Your task to perform on an android device: turn pop-ups on in chrome Image 0: 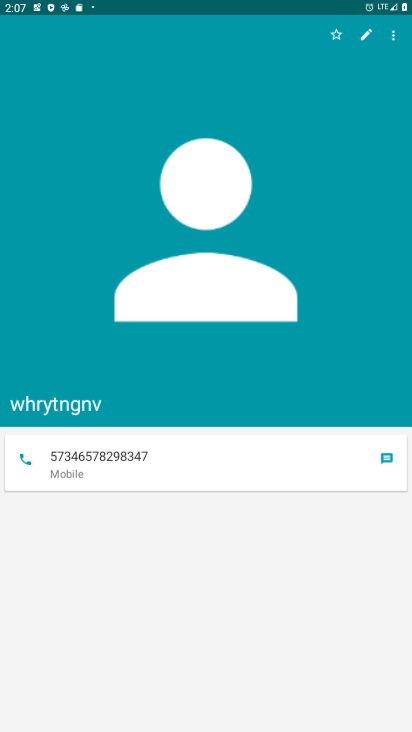
Step 0: drag from (209, 716) to (209, 353)
Your task to perform on an android device: turn pop-ups on in chrome Image 1: 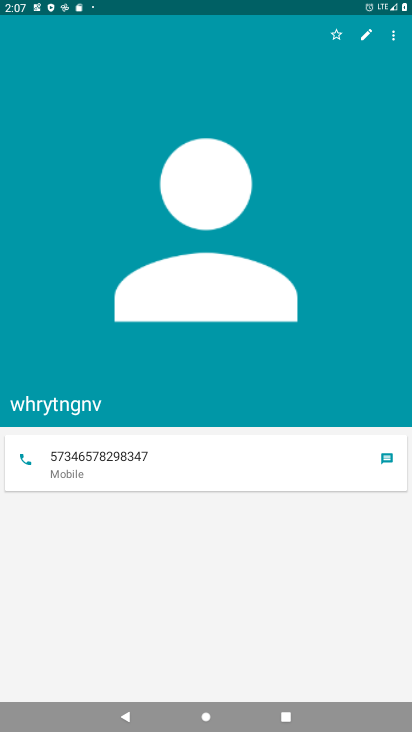
Step 1: press home button
Your task to perform on an android device: turn pop-ups on in chrome Image 2: 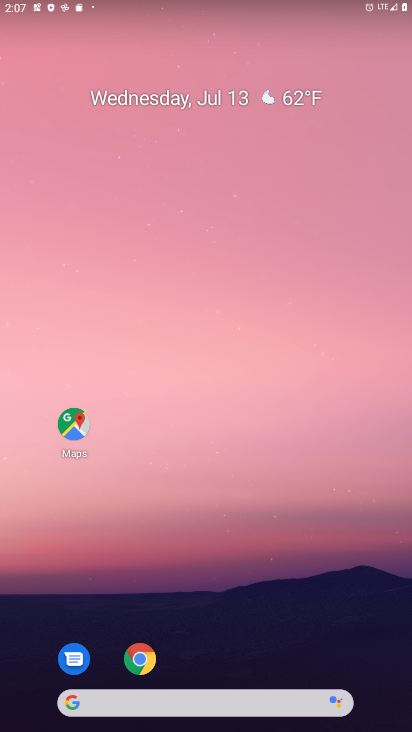
Step 2: drag from (217, 729) to (217, 592)
Your task to perform on an android device: turn pop-ups on in chrome Image 3: 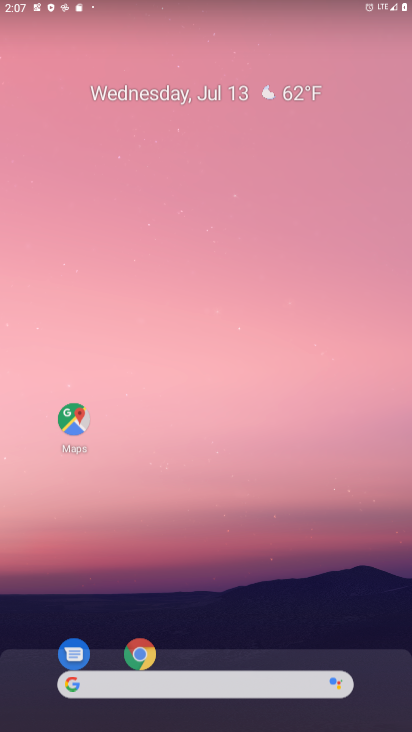
Step 3: drag from (218, 324) to (217, 162)
Your task to perform on an android device: turn pop-ups on in chrome Image 4: 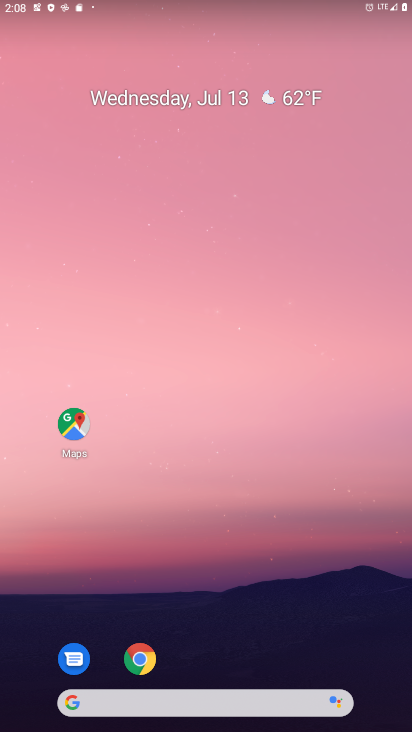
Step 4: click (134, 656)
Your task to perform on an android device: turn pop-ups on in chrome Image 5: 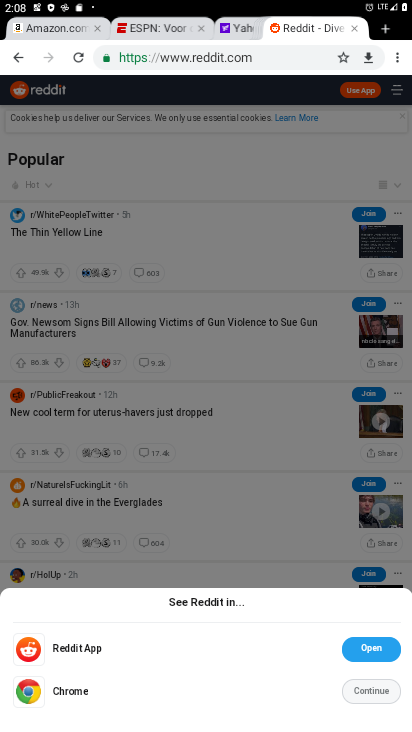
Step 5: click (395, 57)
Your task to perform on an android device: turn pop-ups on in chrome Image 6: 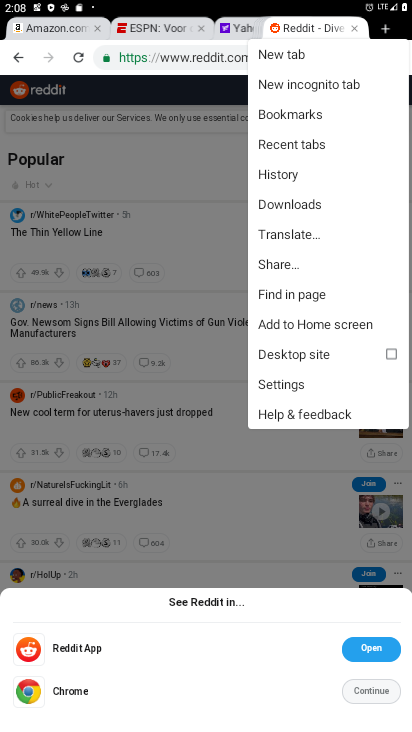
Step 6: click (285, 382)
Your task to perform on an android device: turn pop-ups on in chrome Image 7: 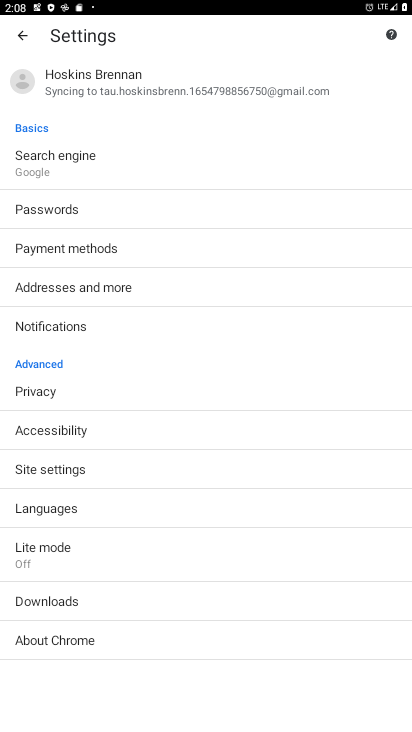
Step 7: click (45, 472)
Your task to perform on an android device: turn pop-ups on in chrome Image 8: 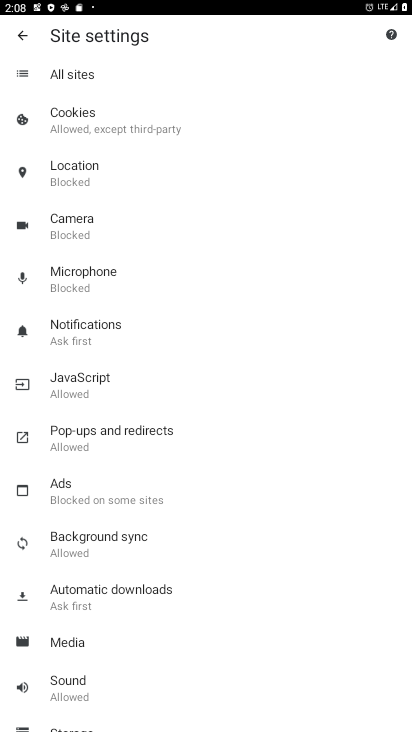
Step 8: click (78, 436)
Your task to perform on an android device: turn pop-ups on in chrome Image 9: 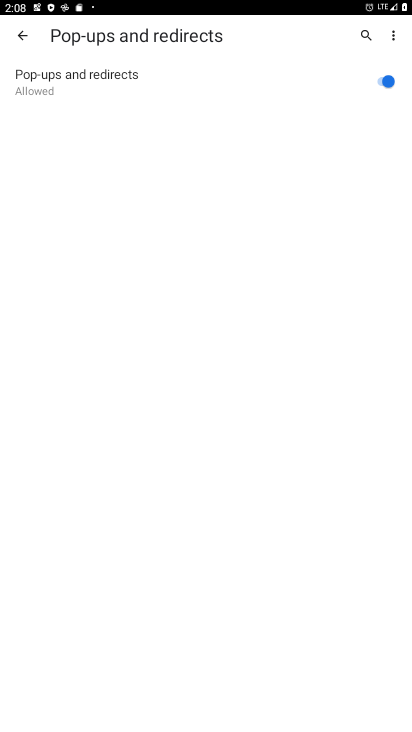
Step 9: task complete